Your task to perform on an android device: toggle improve location accuracy Image 0: 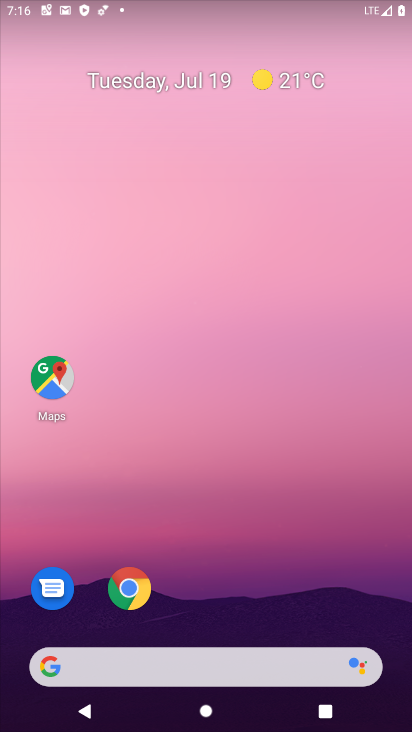
Step 0: drag from (181, 604) to (205, 229)
Your task to perform on an android device: toggle improve location accuracy Image 1: 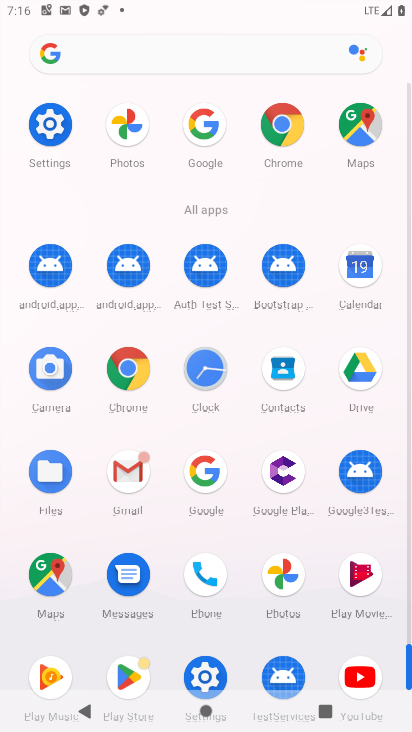
Step 1: click (207, 666)
Your task to perform on an android device: toggle improve location accuracy Image 2: 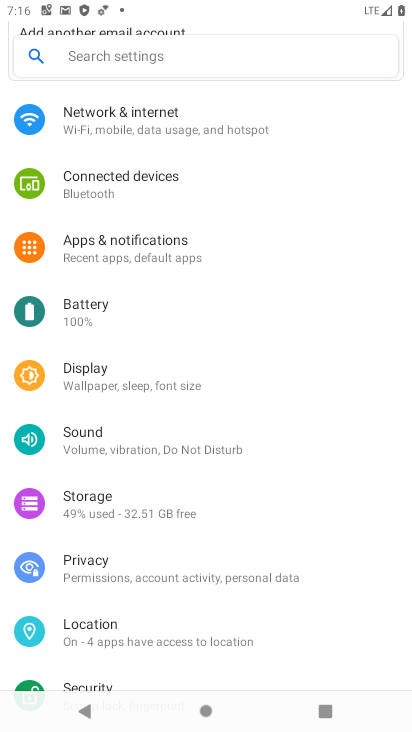
Step 2: click (104, 644)
Your task to perform on an android device: toggle improve location accuracy Image 3: 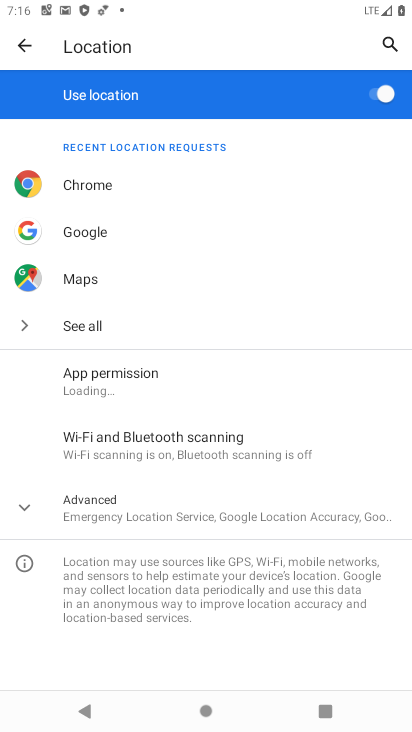
Step 3: click (131, 512)
Your task to perform on an android device: toggle improve location accuracy Image 4: 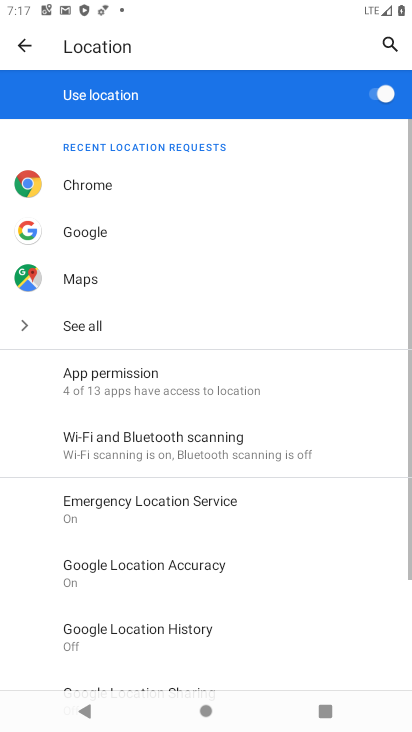
Step 4: click (170, 580)
Your task to perform on an android device: toggle improve location accuracy Image 5: 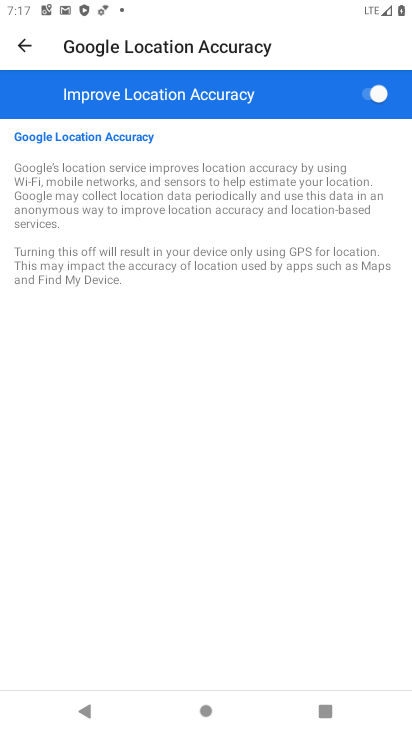
Step 5: click (369, 97)
Your task to perform on an android device: toggle improve location accuracy Image 6: 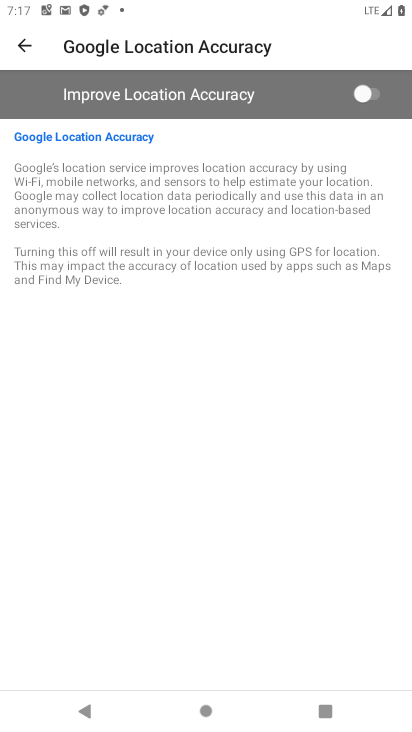
Step 6: task complete